Your task to perform on an android device: see creations saved in the google photos Image 0: 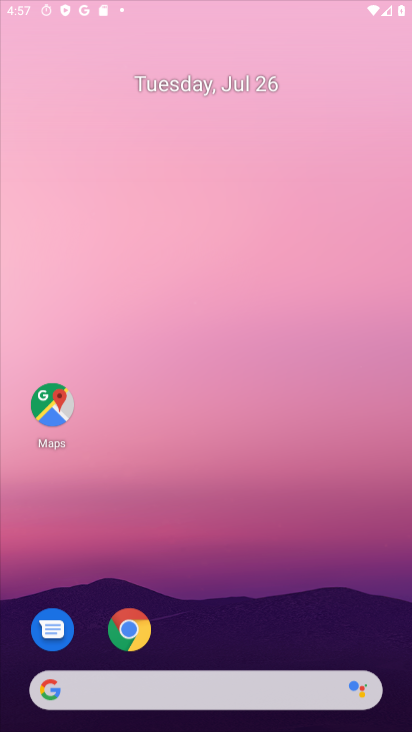
Step 0: drag from (325, 597) to (228, 48)
Your task to perform on an android device: see creations saved in the google photos Image 1: 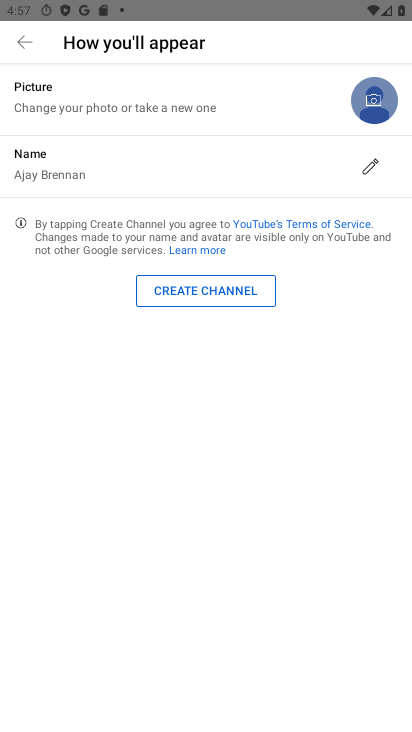
Step 1: press home button
Your task to perform on an android device: see creations saved in the google photos Image 2: 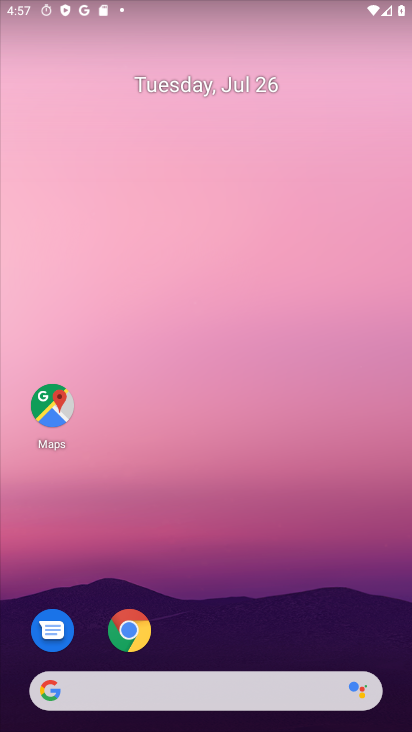
Step 2: drag from (290, 530) to (206, 49)
Your task to perform on an android device: see creations saved in the google photos Image 3: 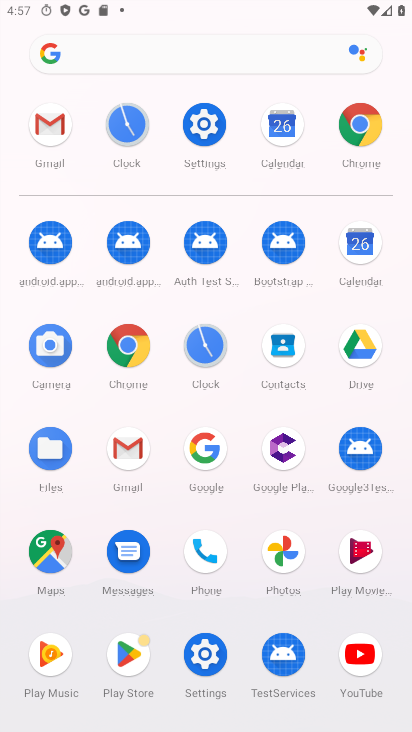
Step 3: click (276, 550)
Your task to perform on an android device: see creations saved in the google photos Image 4: 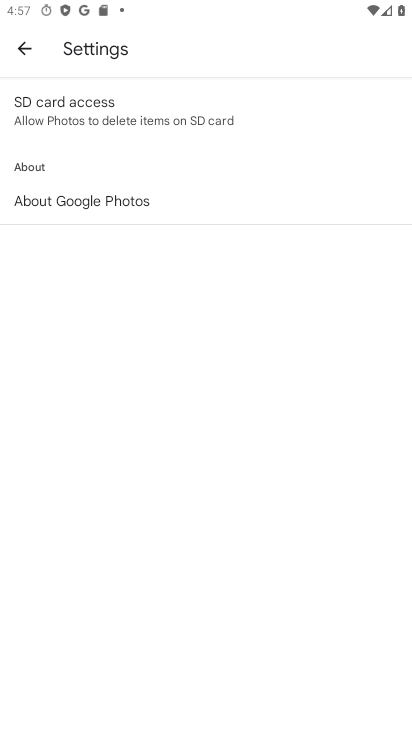
Step 4: click (21, 46)
Your task to perform on an android device: see creations saved in the google photos Image 5: 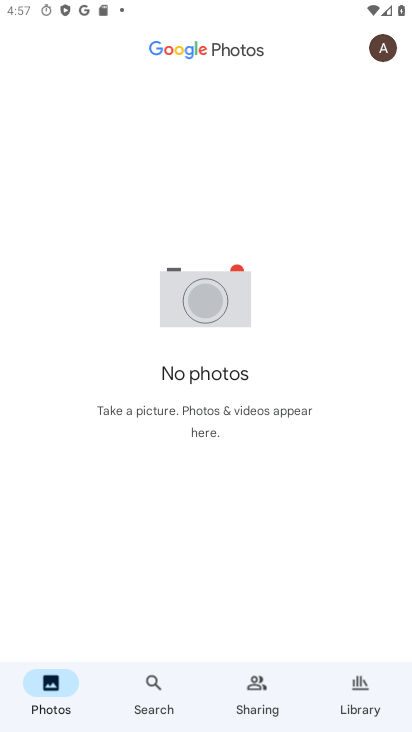
Step 5: click (250, 710)
Your task to perform on an android device: see creations saved in the google photos Image 6: 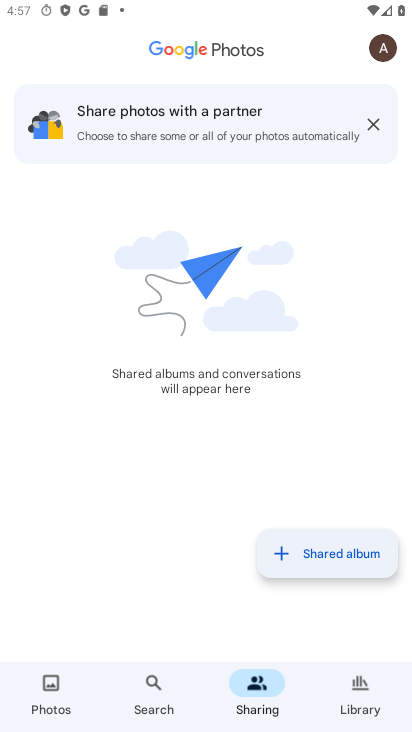
Step 6: click (359, 684)
Your task to perform on an android device: see creations saved in the google photos Image 7: 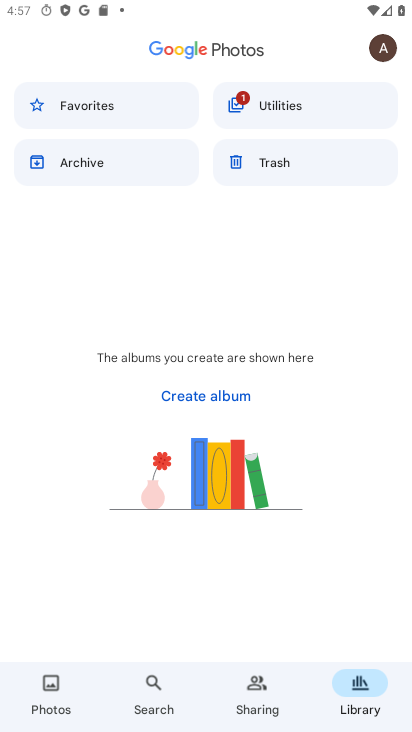
Step 7: task complete